Your task to perform on an android device: visit the assistant section in the google photos Image 0: 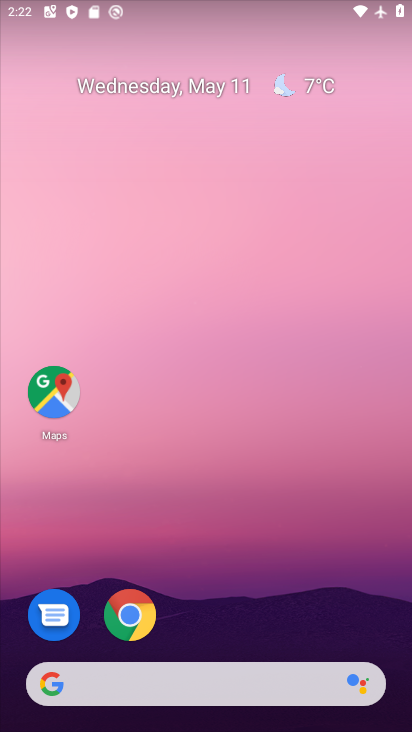
Step 0: drag from (295, 604) to (295, 141)
Your task to perform on an android device: visit the assistant section in the google photos Image 1: 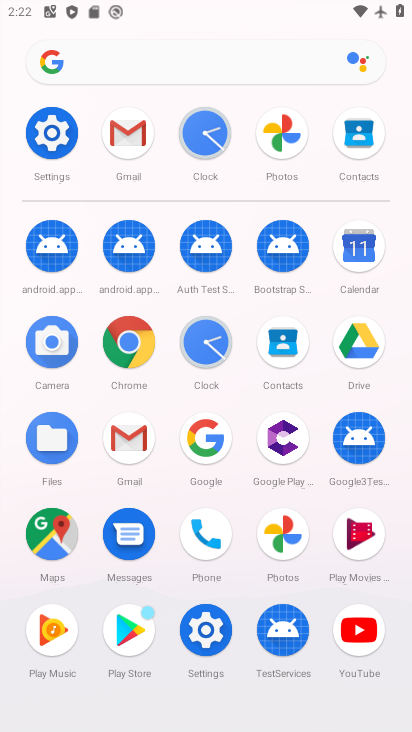
Step 1: click (297, 536)
Your task to perform on an android device: visit the assistant section in the google photos Image 2: 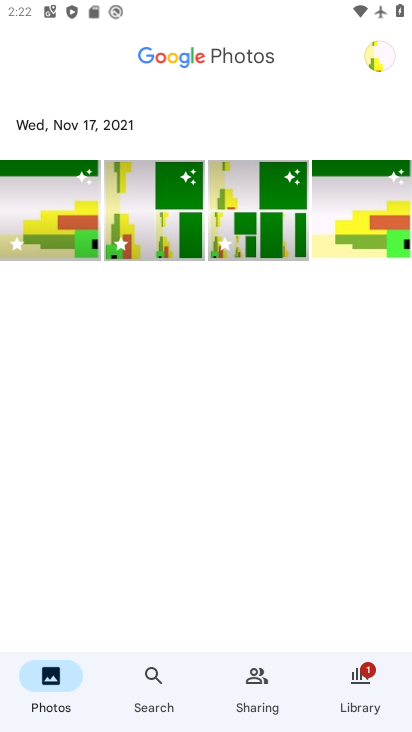
Step 2: click (235, 718)
Your task to perform on an android device: visit the assistant section in the google photos Image 3: 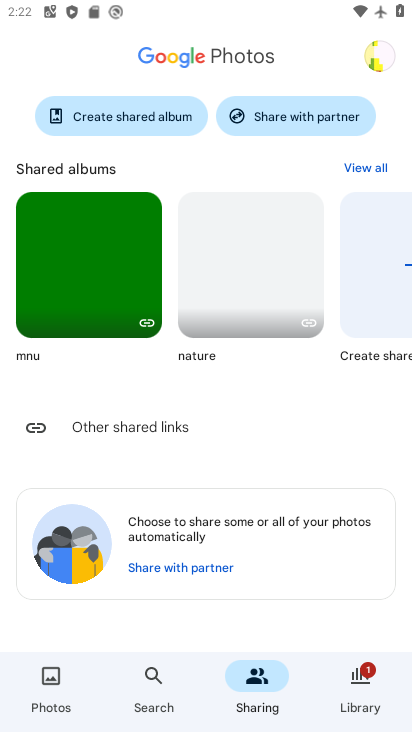
Step 3: drag from (362, 298) to (105, 298)
Your task to perform on an android device: visit the assistant section in the google photos Image 4: 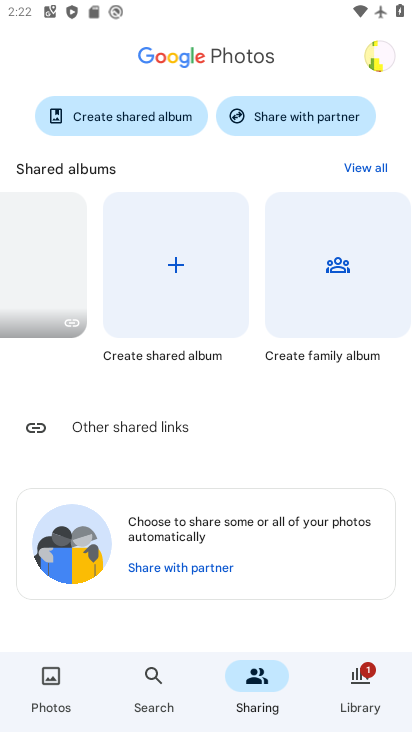
Step 4: drag from (309, 292) to (91, 376)
Your task to perform on an android device: visit the assistant section in the google photos Image 5: 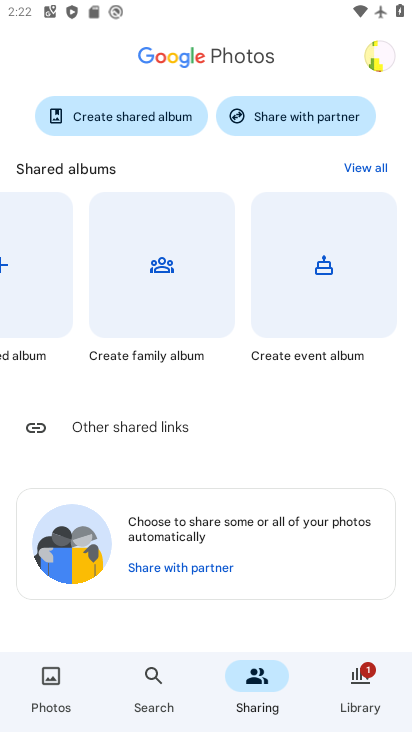
Step 5: click (358, 693)
Your task to perform on an android device: visit the assistant section in the google photos Image 6: 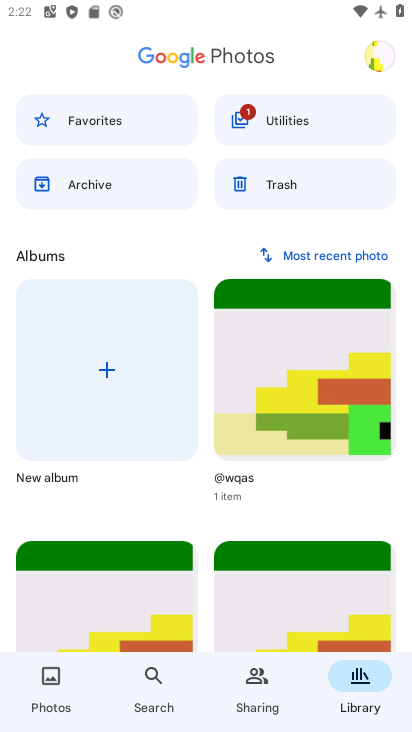
Step 6: task complete